Your task to perform on an android device: Open calendar and show me the first week of next month Image 0: 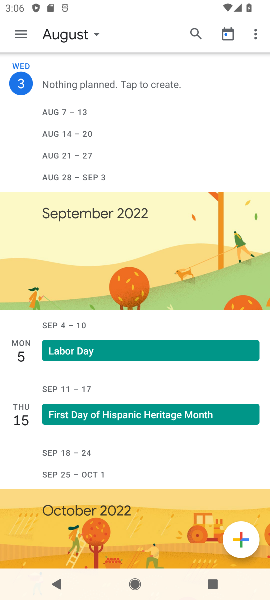
Step 0: press back button
Your task to perform on an android device: Open calendar and show me the first week of next month Image 1: 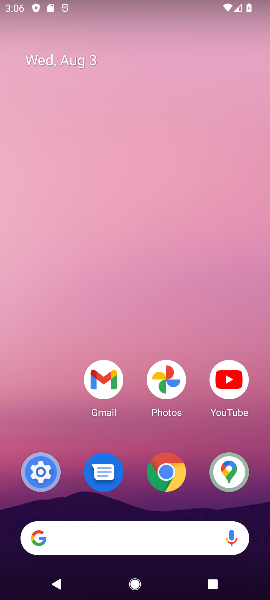
Step 1: drag from (37, 405) to (81, 9)
Your task to perform on an android device: Open calendar and show me the first week of next month Image 2: 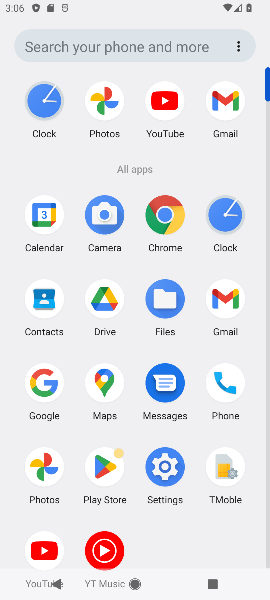
Step 2: click (41, 227)
Your task to perform on an android device: Open calendar and show me the first week of next month Image 3: 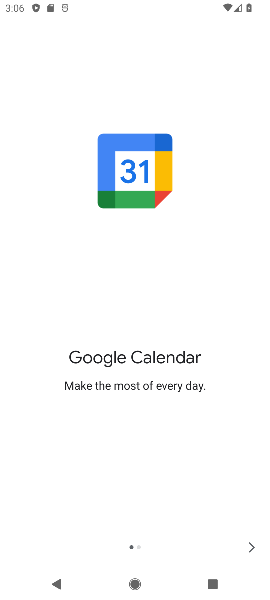
Step 3: click (254, 555)
Your task to perform on an android device: Open calendar and show me the first week of next month Image 4: 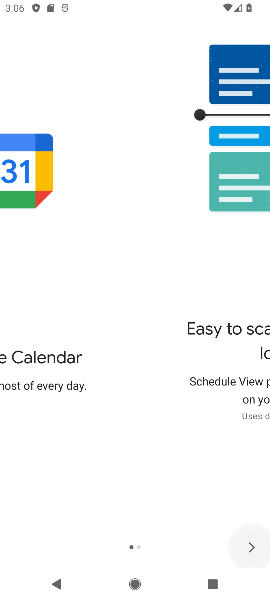
Step 4: click (253, 552)
Your task to perform on an android device: Open calendar and show me the first week of next month Image 5: 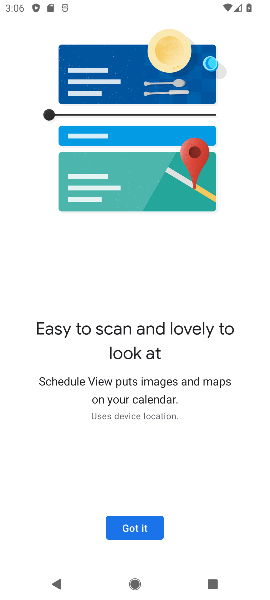
Step 5: click (130, 519)
Your task to perform on an android device: Open calendar and show me the first week of next month Image 6: 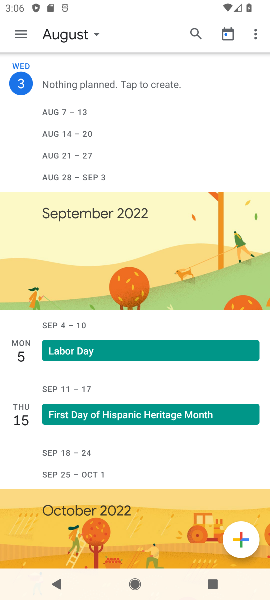
Step 6: click (95, 36)
Your task to perform on an android device: Open calendar and show me the first week of next month Image 7: 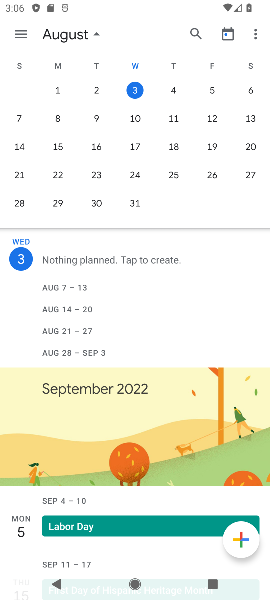
Step 7: drag from (246, 146) to (14, 153)
Your task to perform on an android device: Open calendar and show me the first week of next month Image 8: 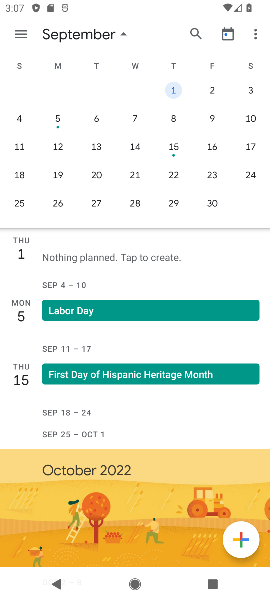
Step 8: click (172, 89)
Your task to perform on an android device: Open calendar and show me the first week of next month Image 9: 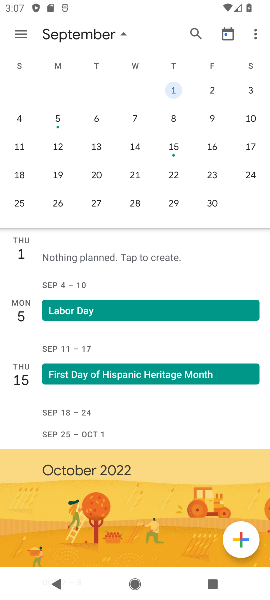
Step 9: task complete